Your task to perform on an android device: Go to Reddit.com Image 0: 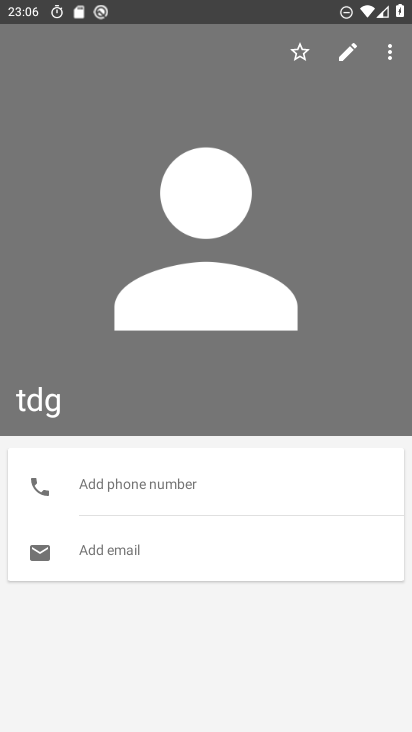
Step 0: press home button
Your task to perform on an android device: Go to Reddit.com Image 1: 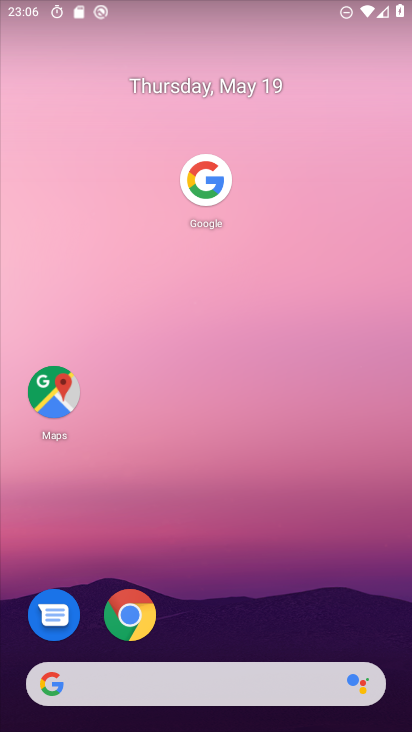
Step 1: click (205, 186)
Your task to perform on an android device: Go to Reddit.com Image 2: 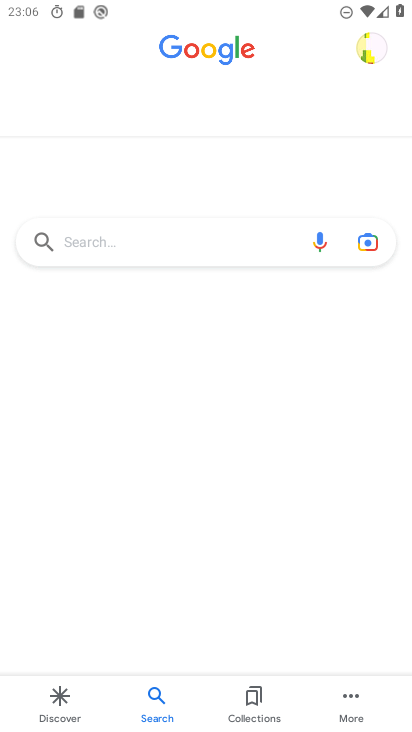
Step 2: click (130, 232)
Your task to perform on an android device: Go to Reddit.com Image 3: 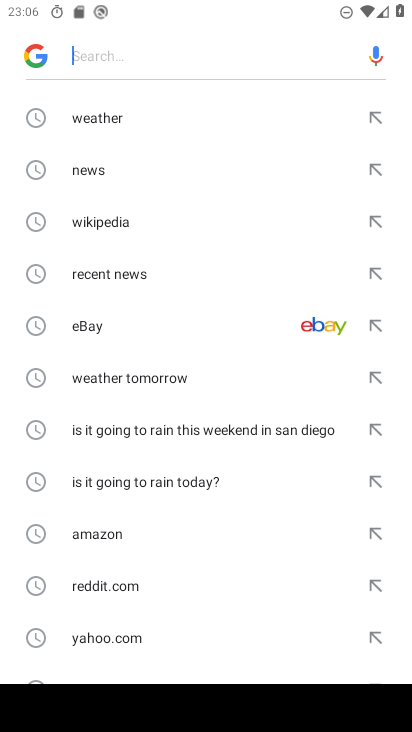
Step 3: click (137, 588)
Your task to perform on an android device: Go to Reddit.com Image 4: 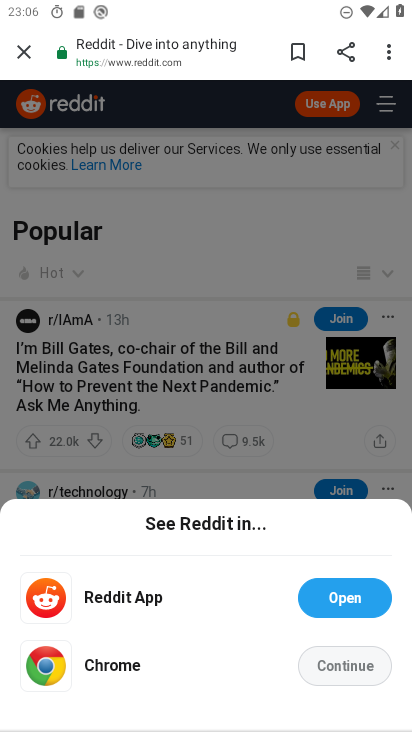
Step 4: task complete